Your task to perform on an android device: open app "Pandora - Music & Podcasts" (install if not already installed) and go to login screen Image 0: 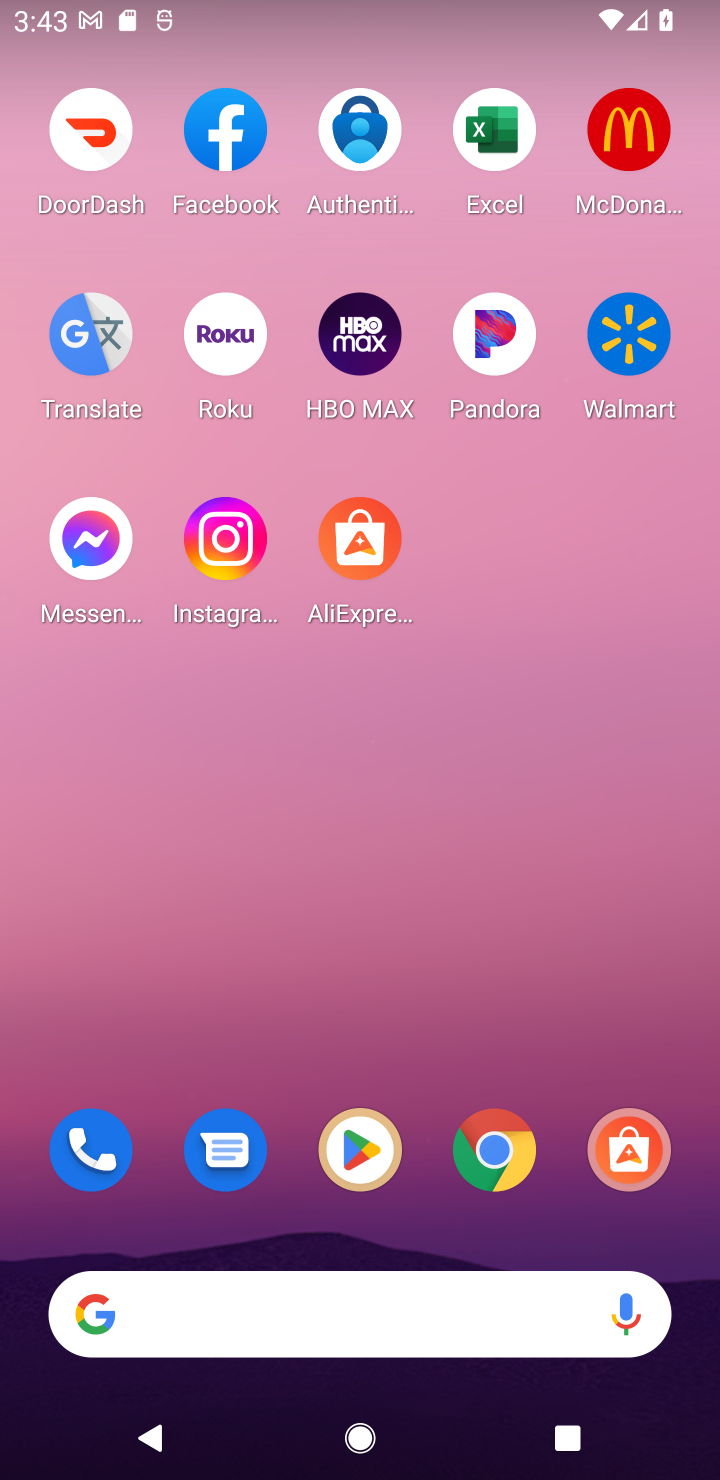
Step 0: click (490, 331)
Your task to perform on an android device: open app "Pandora - Music & Podcasts" (install if not already installed) and go to login screen Image 1: 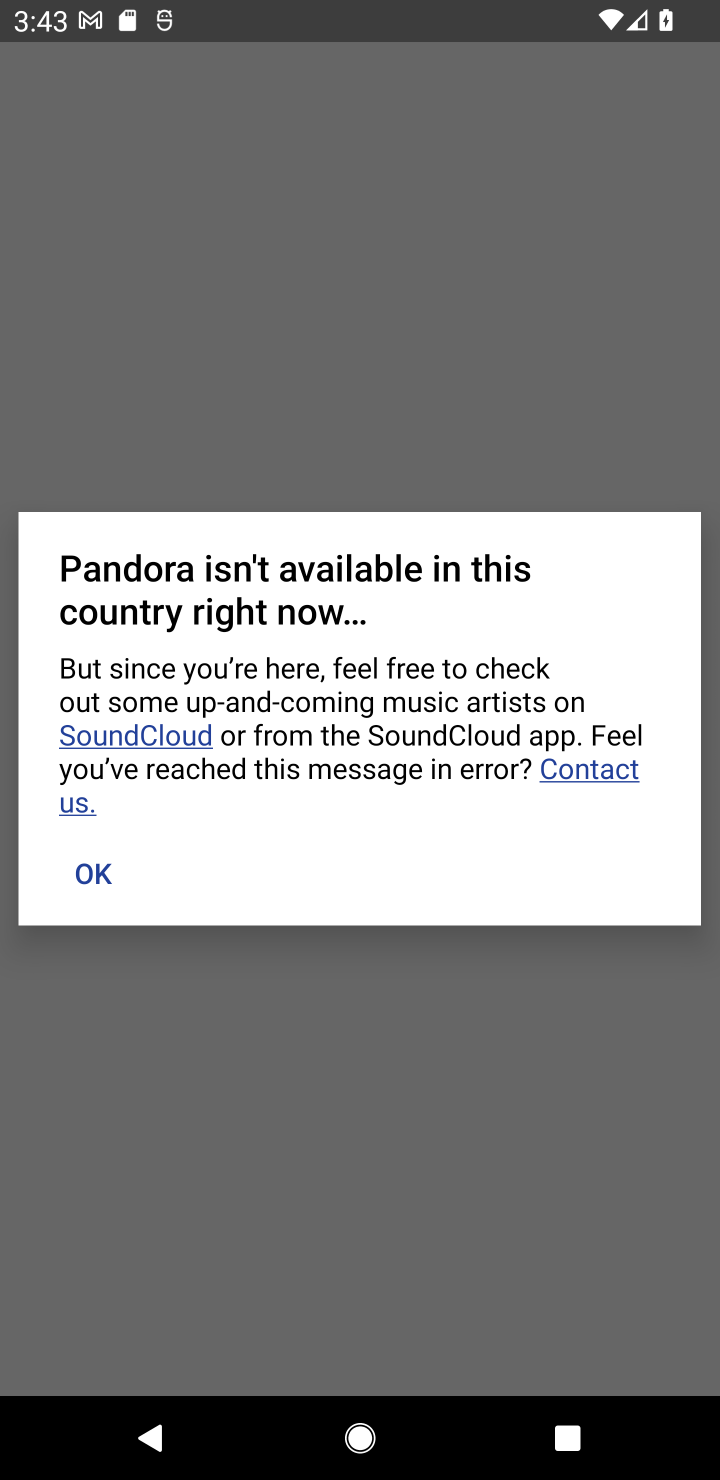
Step 1: click (96, 876)
Your task to perform on an android device: open app "Pandora - Music & Podcasts" (install if not already installed) and go to login screen Image 2: 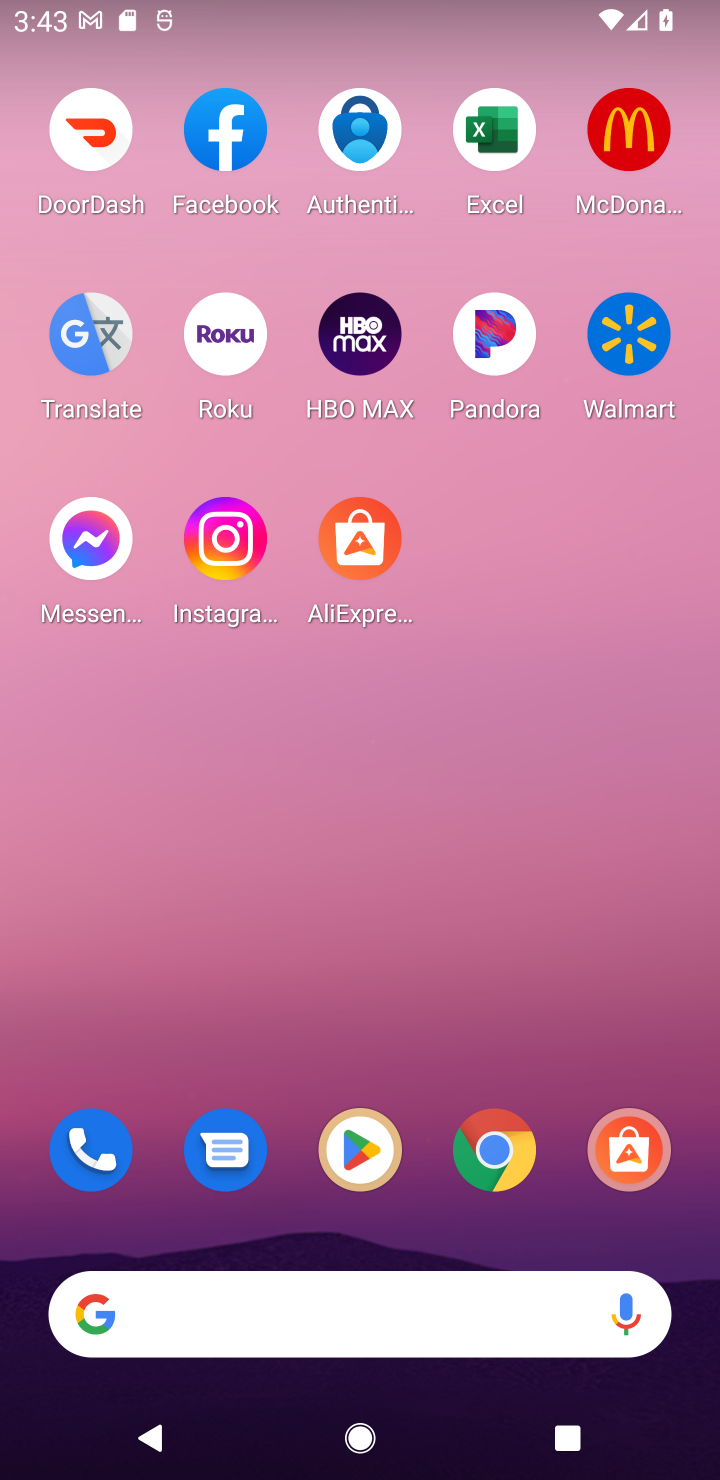
Step 2: click (488, 329)
Your task to perform on an android device: open app "Pandora - Music & Podcasts" (install if not already installed) and go to login screen Image 3: 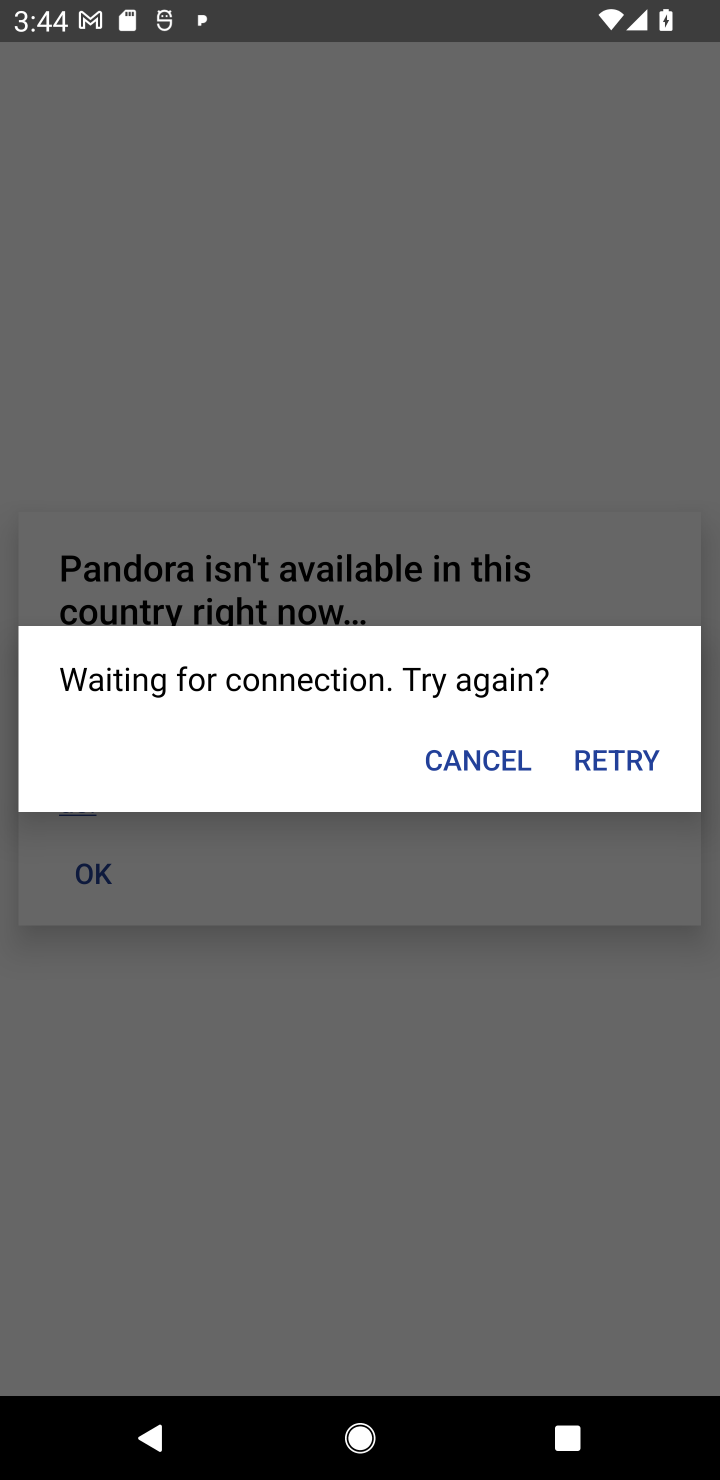
Step 3: task complete